Your task to perform on an android device: turn on translation in the chrome app Image 0: 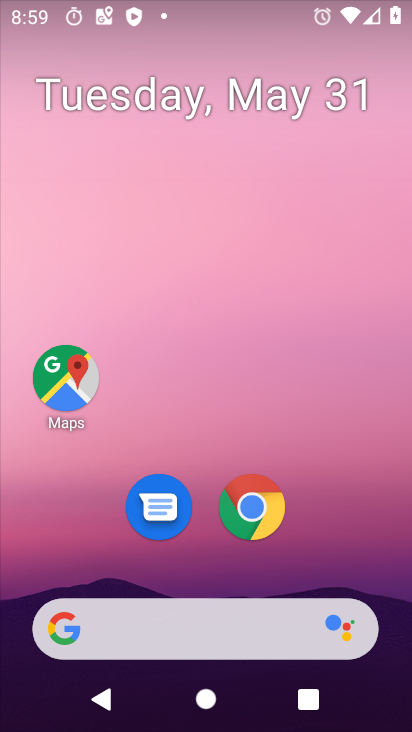
Step 0: click (253, 513)
Your task to perform on an android device: turn on translation in the chrome app Image 1: 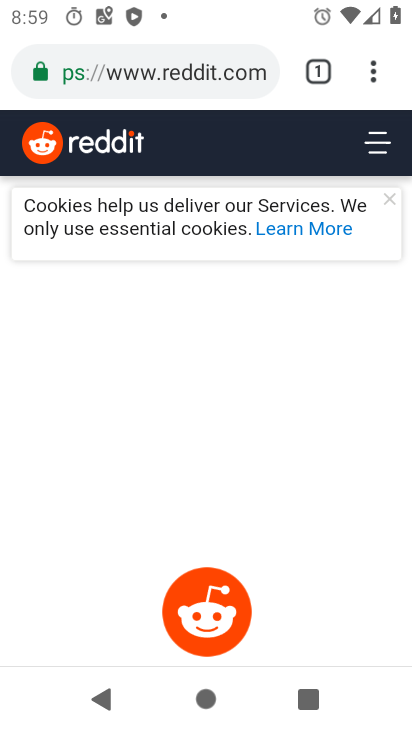
Step 1: click (375, 77)
Your task to perform on an android device: turn on translation in the chrome app Image 2: 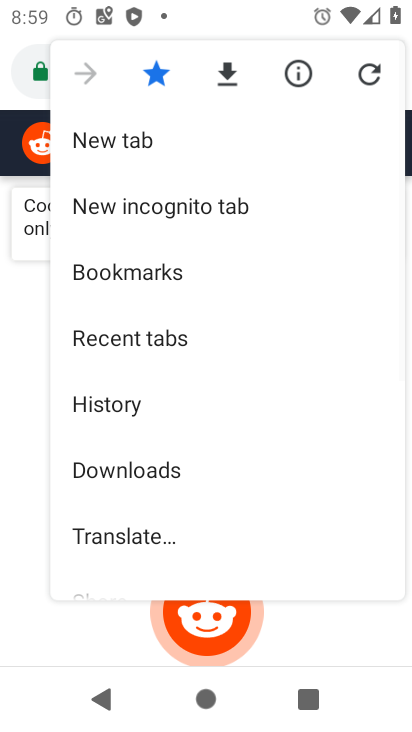
Step 2: drag from (270, 464) to (252, 120)
Your task to perform on an android device: turn on translation in the chrome app Image 3: 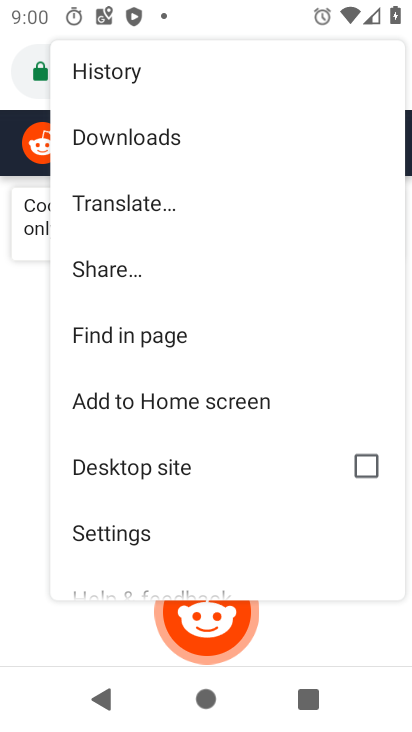
Step 3: click (119, 538)
Your task to perform on an android device: turn on translation in the chrome app Image 4: 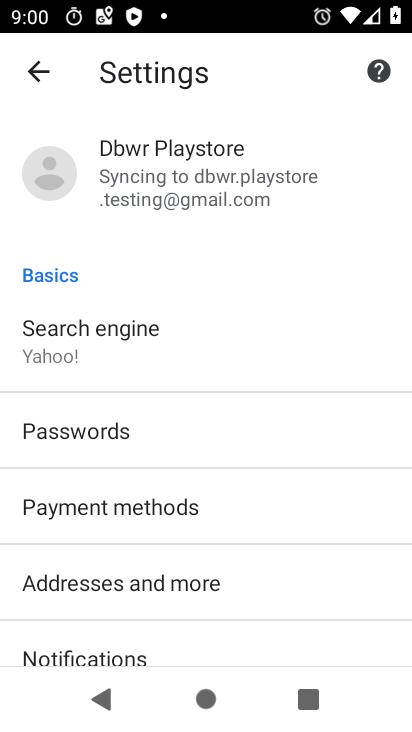
Step 4: drag from (191, 538) to (147, 18)
Your task to perform on an android device: turn on translation in the chrome app Image 5: 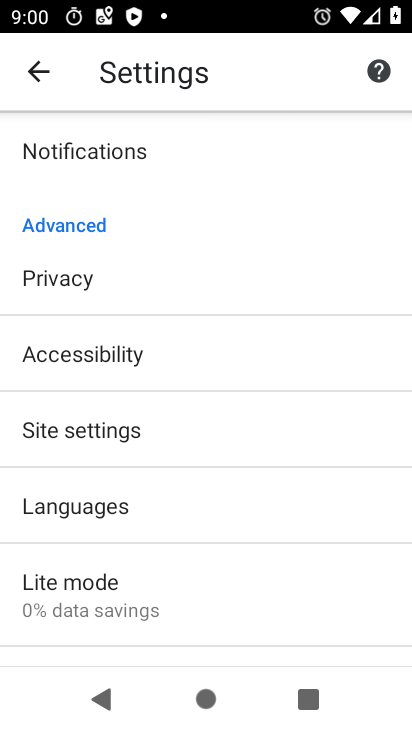
Step 5: click (91, 509)
Your task to perform on an android device: turn on translation in the chrome app Image 6: 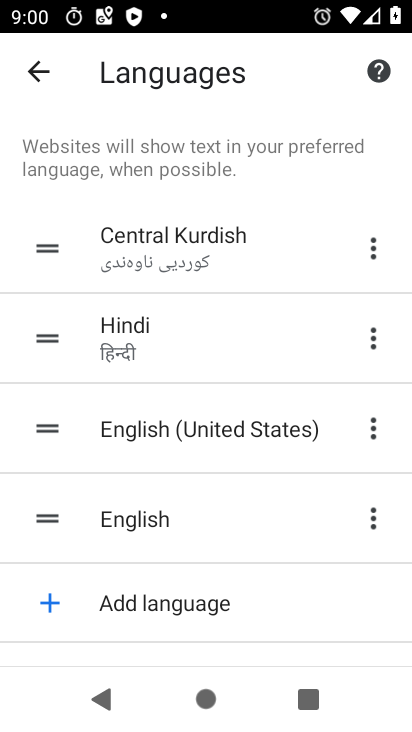
Step 6: drag from (207, 517) to (216, 226)
Your task to perform on an android device: turn on translation in the chrome app Image 7: 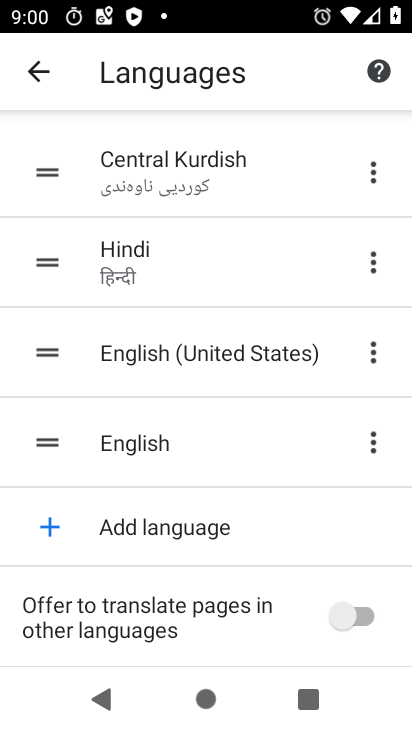
Step 7: click (344, 608)
Your task to perform on an android device: turn on translation in the chrome app Image 8: 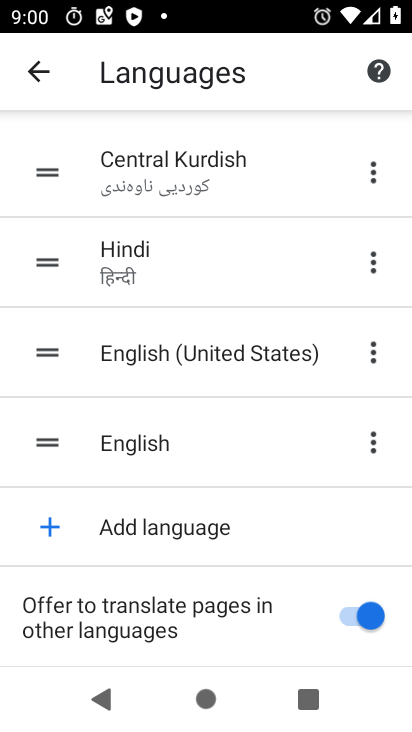
Step 8: task complete